Your task to perform on an android device: toggle notification dots Image 0: 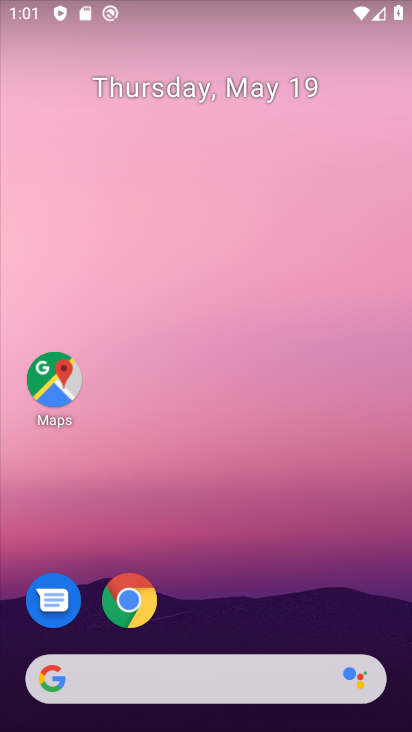
Step 0: drag from (274, 620) to (235, 22)
Your task to perform on an android device: toggle notification dots Image 1: 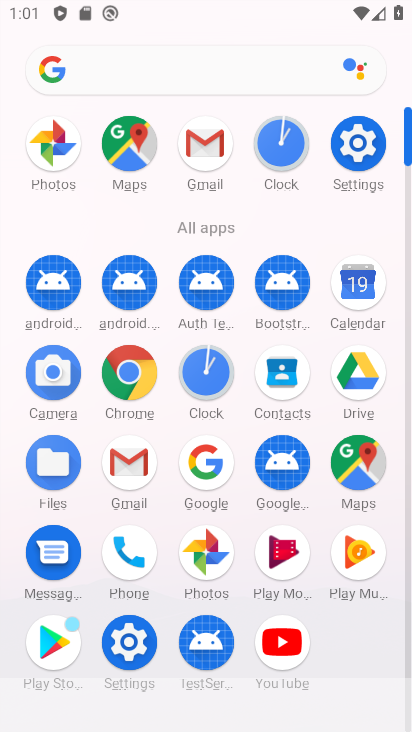
Step 1: click (131, 634)
Your task to perform on an android device: toggle notification dots Image 2: 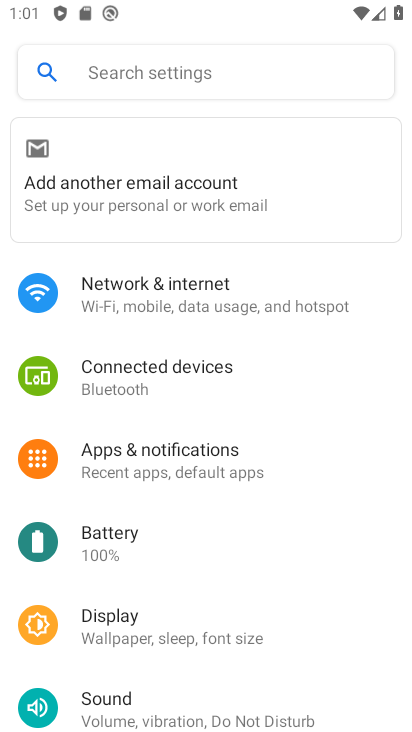
Step 2: click (164, 466)
Your task to perform on an android device: toggle notification dots Image 3: 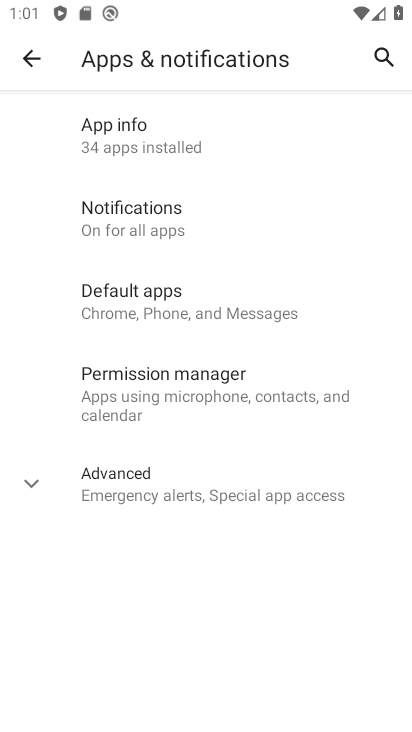
Step 3: click (165, 223)
Your task to perform on an android device: toggle notification dots Image 4: 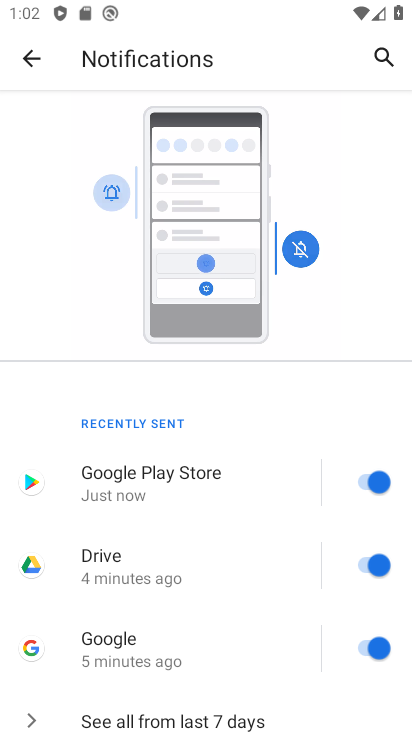
Step 4: drag from (222, 684) to (204, 281)
Your task to perform on an android device: toggle notification dots Image 5: 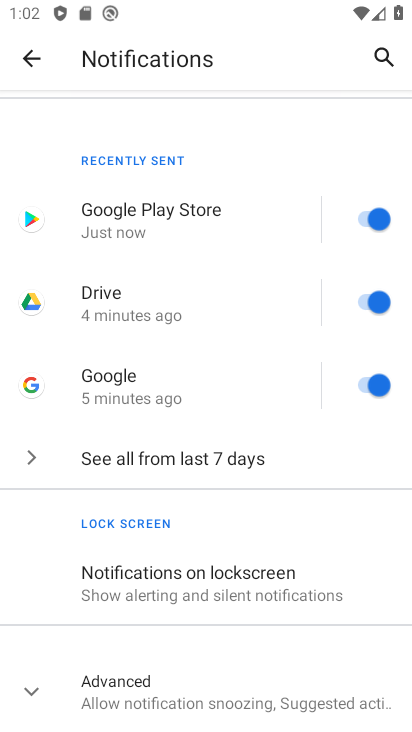
Step 5: click (190, 676)
Your task to perform on an android device: toggle notification dots Image 6: 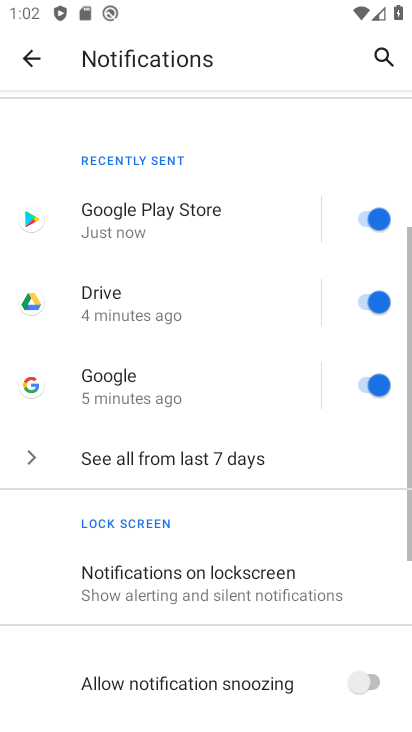
Step 6: drag from (229, 656) to (196, 323)
Your task to perform on an android device: toggle notification dots Image 7: 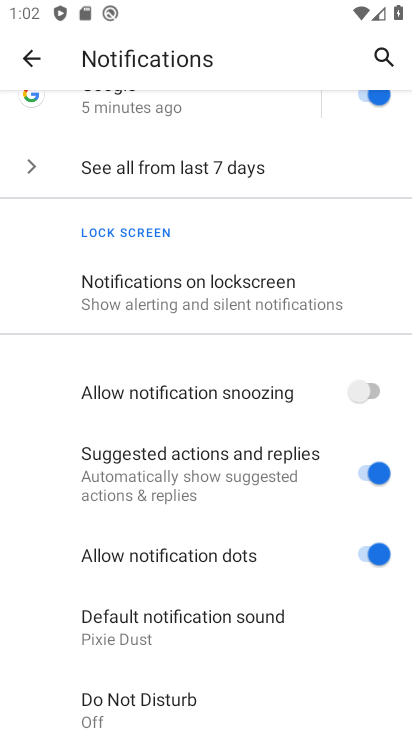
Step 7: click (376, 552)
Your task to perform on an android device: toggle notification dots Image 8: 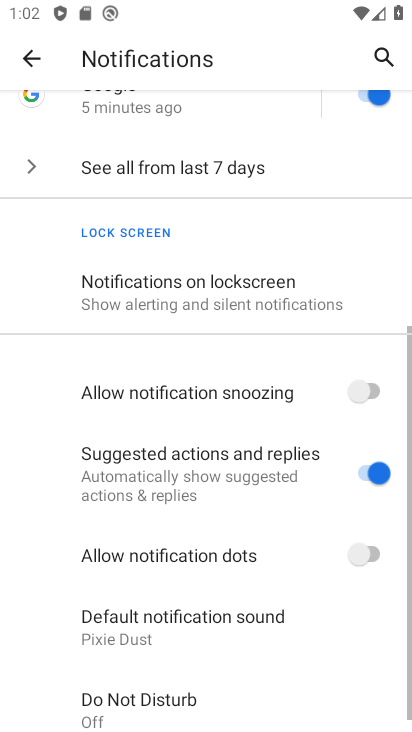
Step 8: task complete